Your task to perform on an android device: check out phone information Image 0: 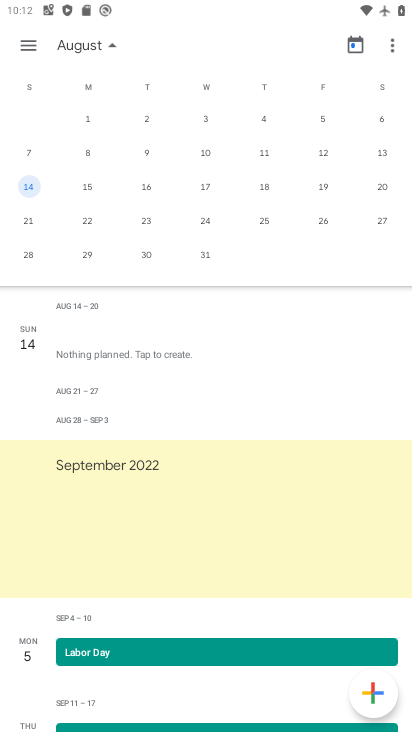
Step 0: press home button
Your task to perform on an android device: check out phone information Image 1: 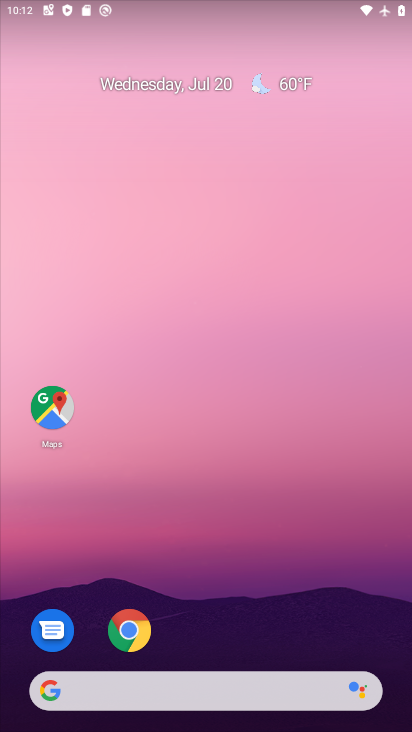
Step 1: drag from (243, 468) to (232, 331)
Your task to perform on an android device: check out phone information Image 2: 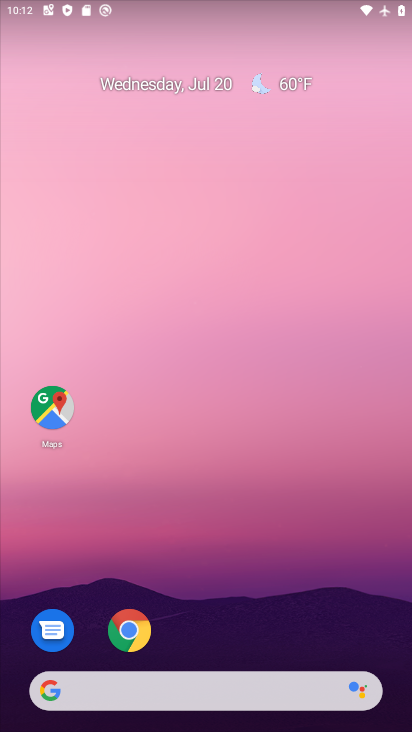
Step 2: drag from (230, 673) to (230, 326)
Your task to perform on an android device: check out phone information Image 3: 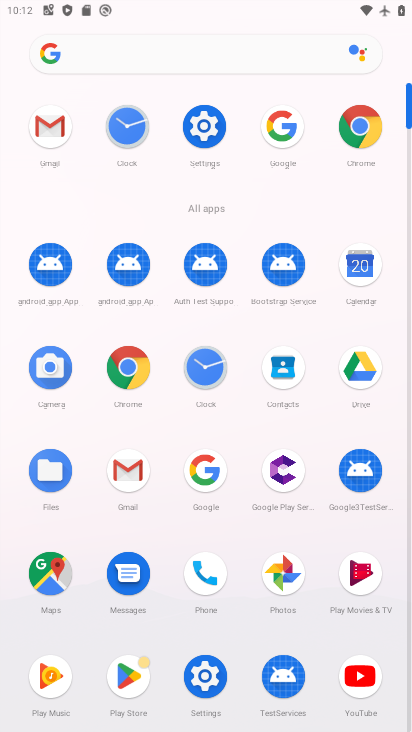
Step 3: click (207, 571)
Your task to perform on an android device: check out phone information Image 4: 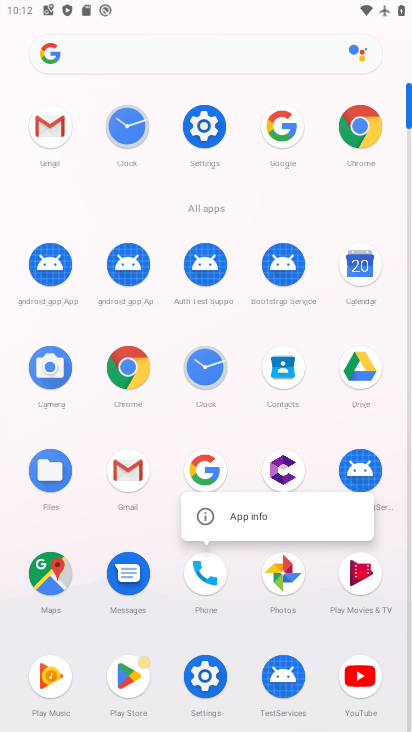
Step 4: click (225, 508)
Your task to perform on an android device: check out phone information Image 5: 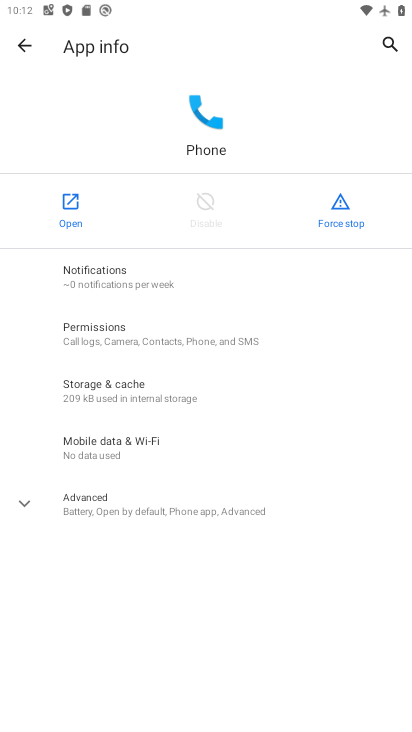
Step 5: click (113, 490)
Your task to perform on an android device: check out phone information Image 6: 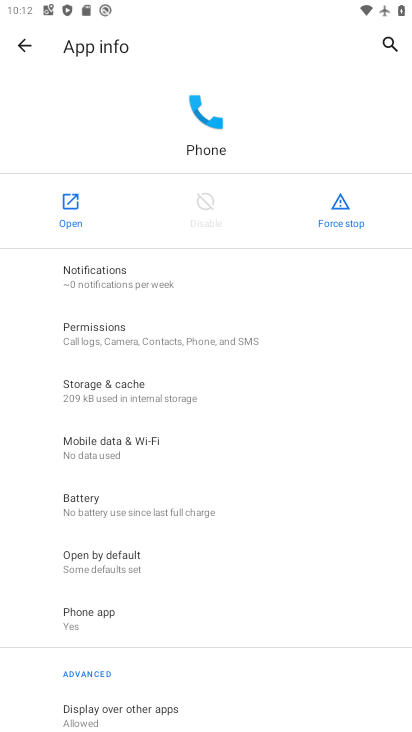
Step 6: task complete